Your task to perform on an android device: Show me the alarms in the clock app Image 0: 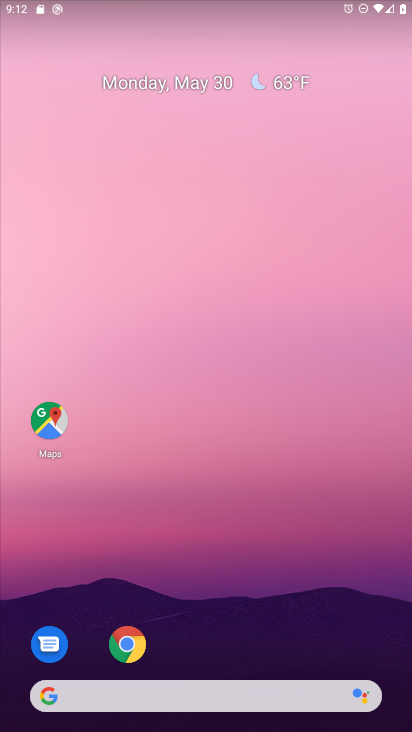
Step 0: drag from (192, 636) to (293, 28)
Your task to perform on an android device: Show me the alarms in the clock app Image 1: 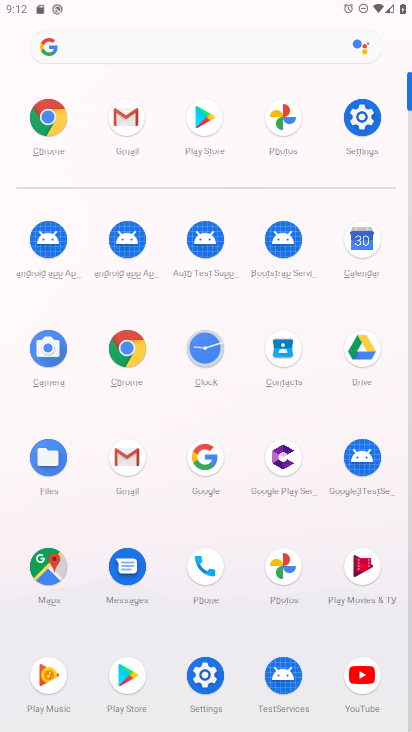
Step 1: click (201, 351)
Your task to perform on an android device: Show me the alarms in the clock app Image 2: 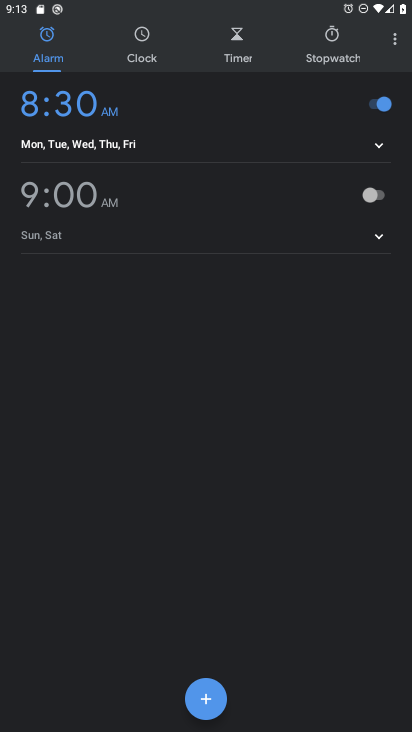
Step 2: task complete